Your task to perform on an android device: Is it going to rain tomorrow? Image 0: 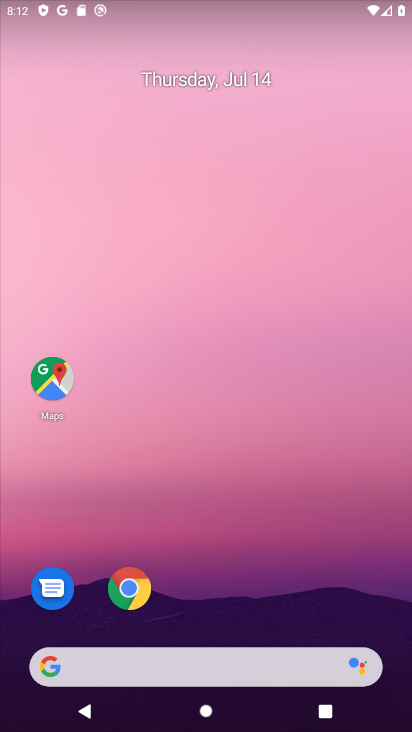
Step 0: drag from (209, 361) to (193, 146)
Your task to perform on an android device: Is it going to rain tomorrow? Image 1: 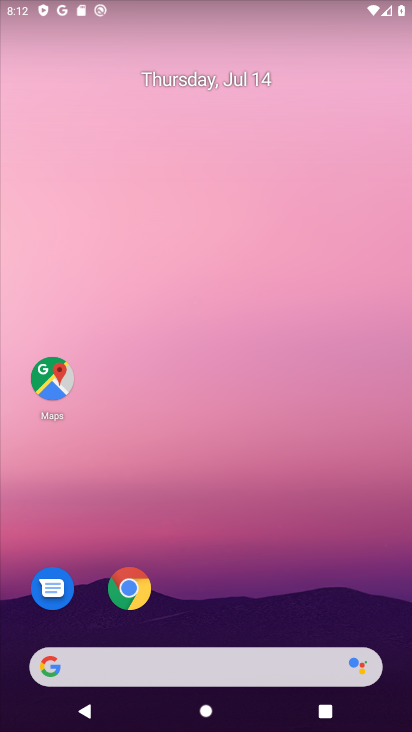
Step 1: drag from (189, 399) to (154, 166)
Your task to perform on an android device: Is it going to rain tomorrow? Image 2: 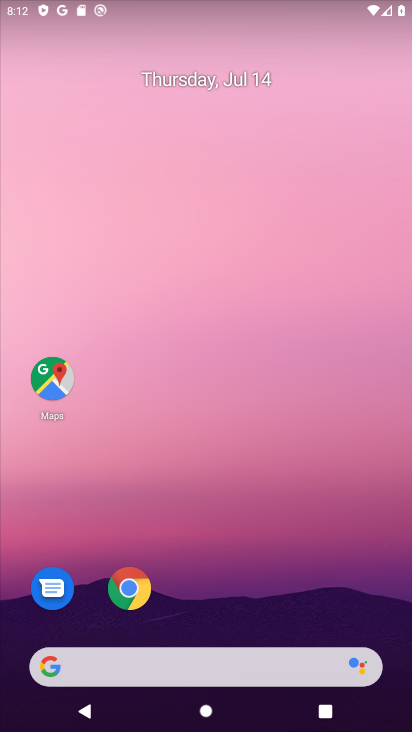
Step 2: drag from (212, 383) to (184, 186)
Your task to perform on an android device: Is it going to rain tomorrow? Image 3: 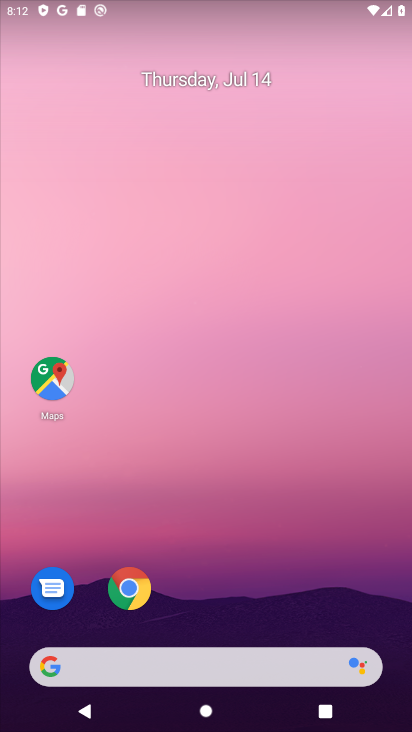
Step 3: drag from (266, 642) to (198, 64)
Your task to perform on an android device: Is it going to rain tomorrow? Image 4: 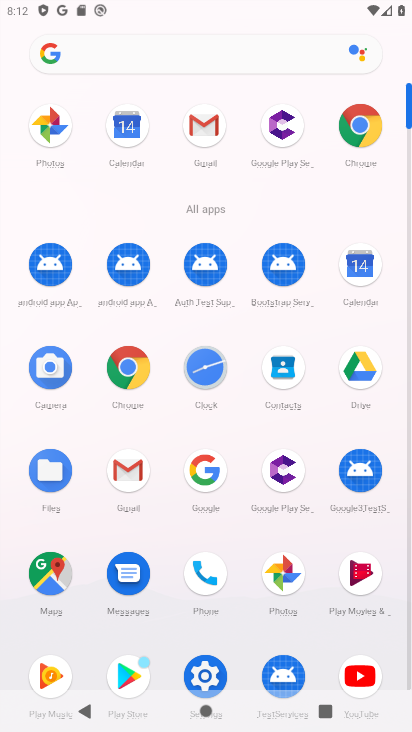
Step 4: click (358, 124)
Your task to perform on an android device: Is it going to rain tomorrow? Image 5: 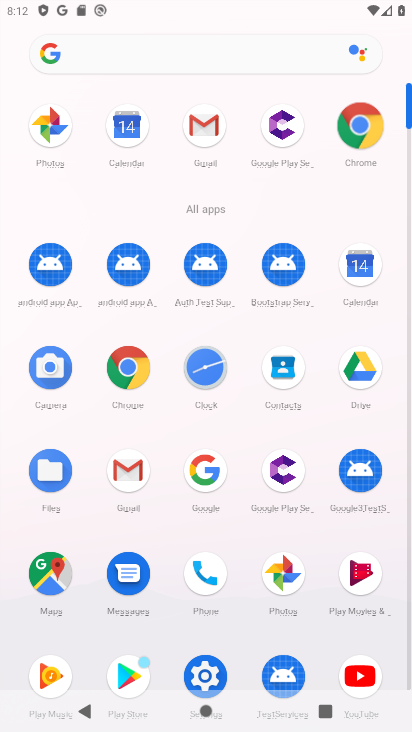
Step 5: click (358, 124)
Your task to perform on an android device: Is it going to rain tomorrow? Image 6: 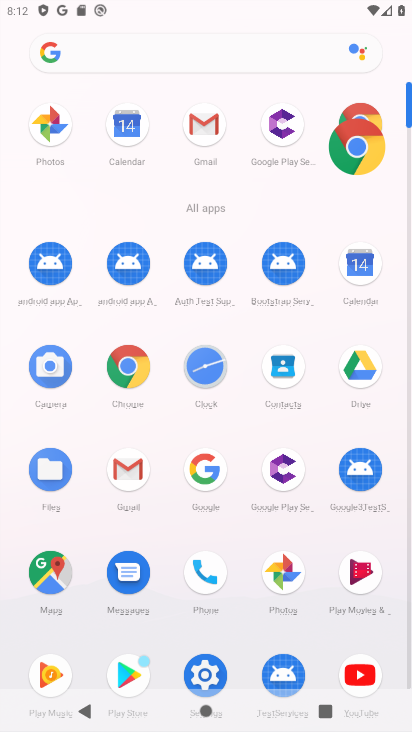
Step 6: click (362, 125)
Your task to perform on an android device: Is it going to rain tomorrow? Image 7: 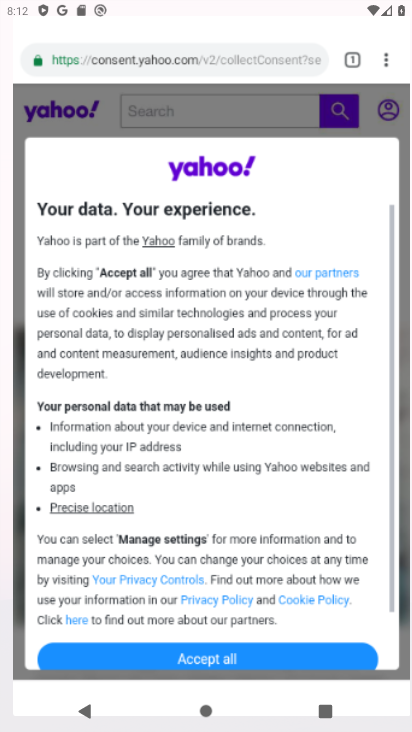
Step 7: click (362, 123)
Your task to perform on an android device: Is it going to rain tomorrow? Image 8: 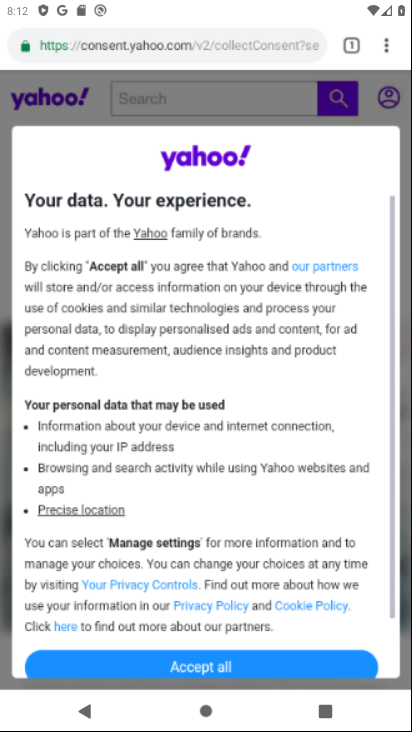
Step 8: click (362, 123)
Your task to perform on an android device: Is it going to rain tomorrow? Image 9: 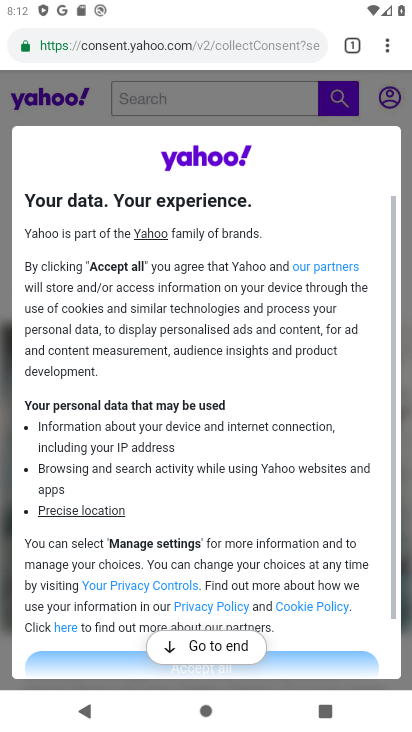
Step 9: click (387, 50)
Your task to perform on an android device: Is it going to rain tomorrow? Image 10: 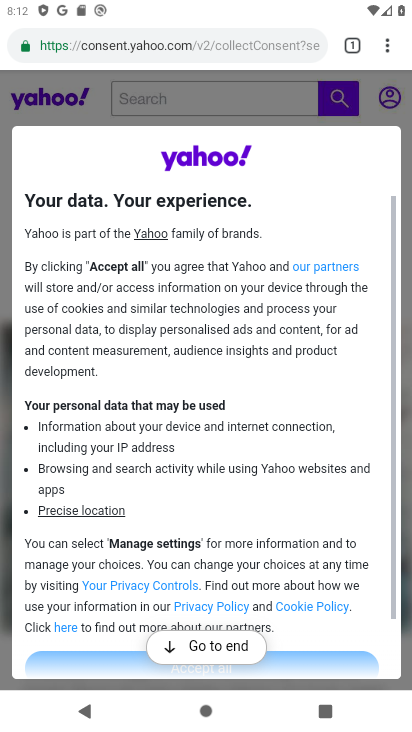
Step 10: drag from (392, 60) to (222, 93)
Your task to perform on an android device: Is it going to rain tomorrow? Image 11: 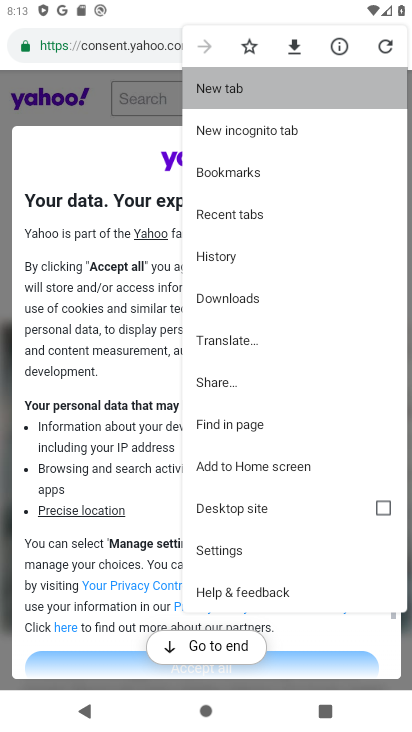
Step 11: click (221, 93)
Your task to perform on an android device: Is it going to rain tomorrow? Image 12: 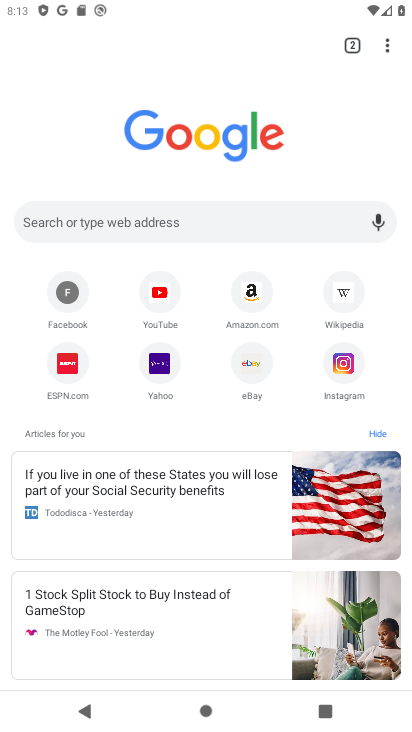
Step 12: click (81, 225)
Your task to perform on an android device: Is it going to rain tomorrow? Image 13: 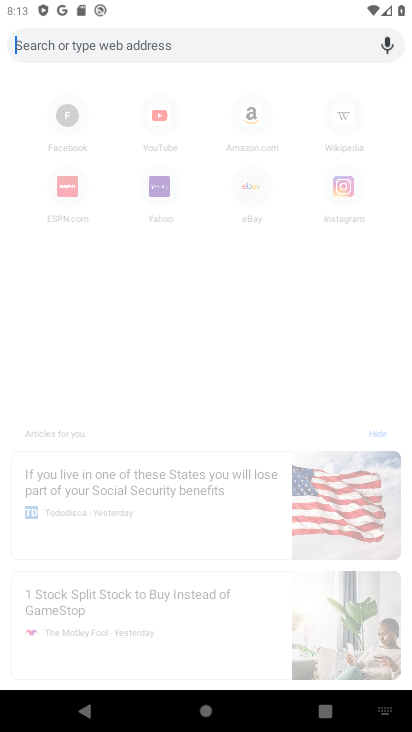
Step 13: type "is it going to rain tomorrow"
Your task to perform on an android device: Is it going to rain tomorrow? Image 14: 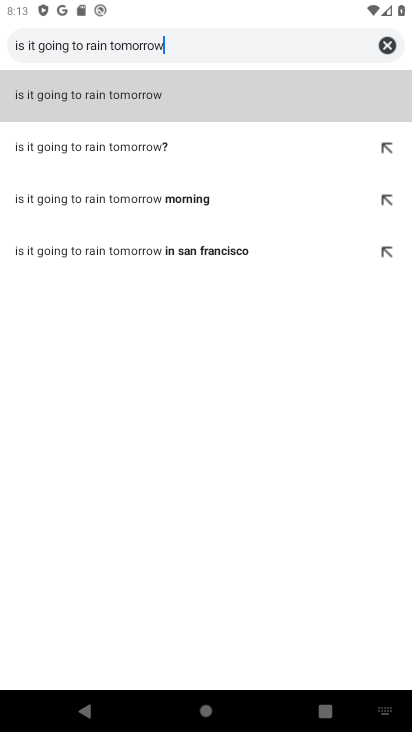
Step 14: click (129, 97)
Your task to perform on an android device: Is it going to rain tomorrow? Image 15: 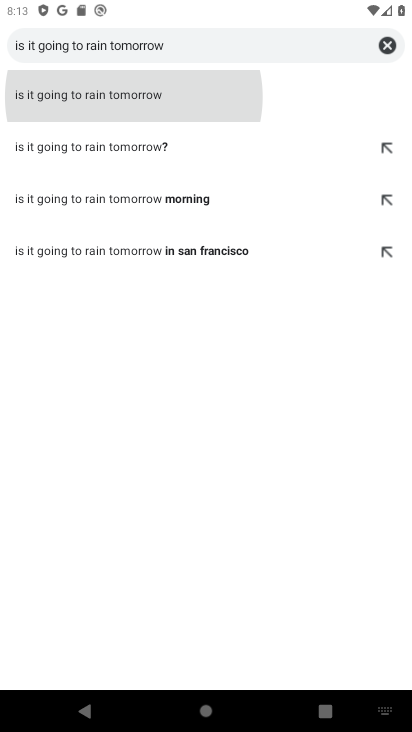
Step 15: click (130, 85)
Your task to perform on an android device: Is it going to rain tomorrow? Image 16: 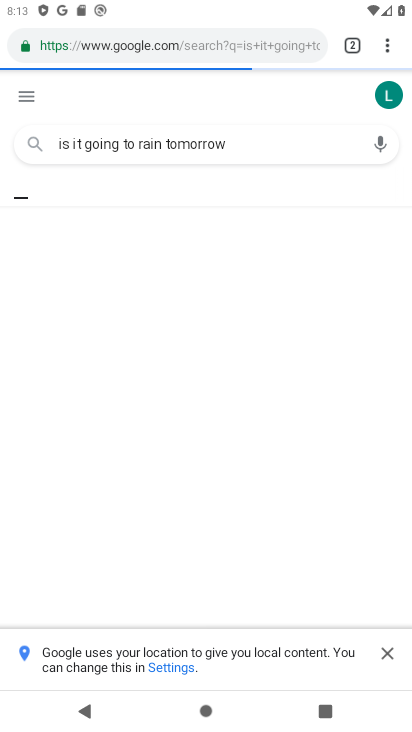
Step 16: task complete